Your task to perform on an android device: see tabs open on other devices in the chrome app Image 0: 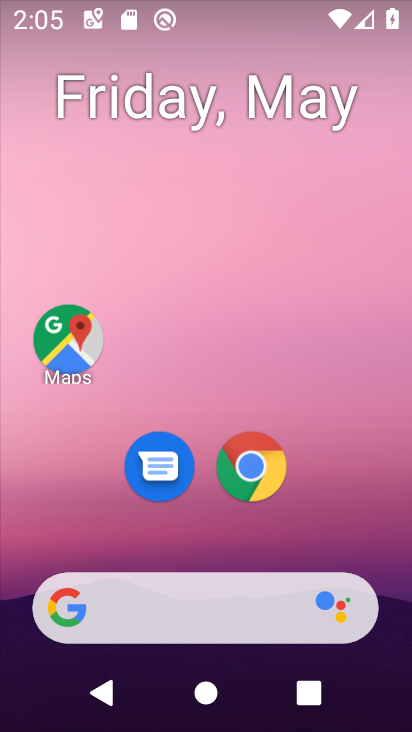
Step 0: drag from (385, 441) to (392, 17)
Your task to perform on an android device: see tabs open on other devices in the chrome app Image 1: 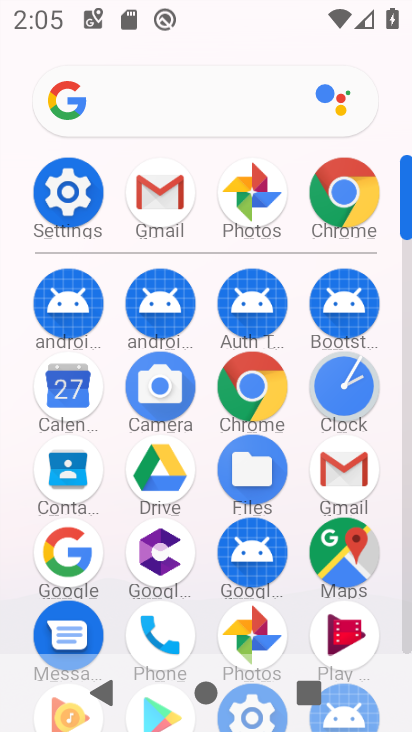
Step 1: click (332, 219)
Your task to perform on an android device: see tabs open on other devices in the chrome app Image 2: 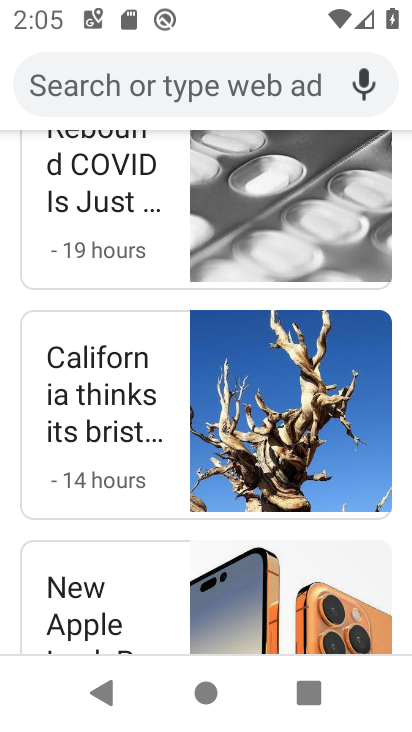
Step 2: drag from (306, 172) to (315, 667)
Your task to perform on an android device: see tabs open on other devices in the chrome app Image 3: 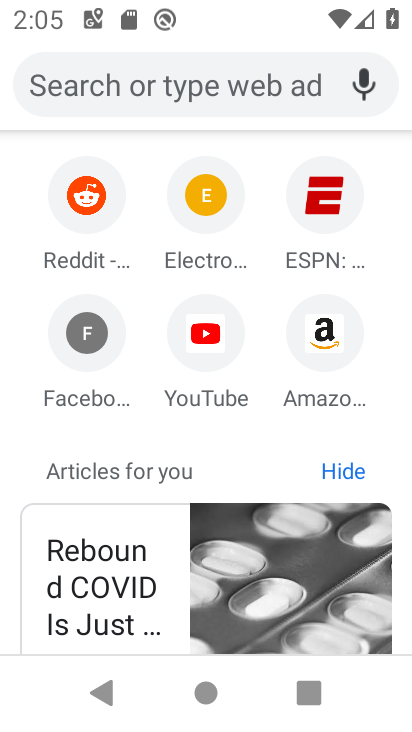
Step 3: drag from (201, 130) to (134, 670)
Your task to perform on an android device: see tabs open on other devices in the chrome app Image 4: 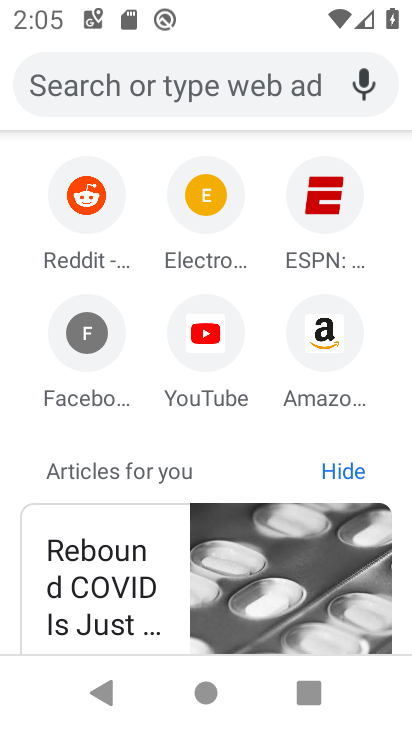
Step 4: click (260, 597)
Your task to perform on an android device: see tabs open on other devices in the chrome app Image 5: 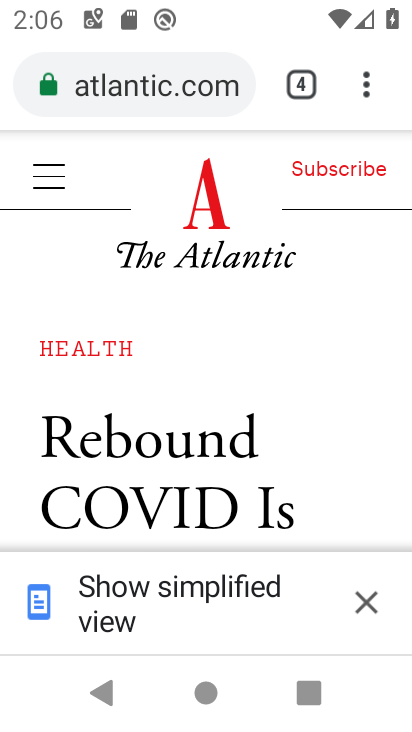
Step 5: task complete